Your task to perform on an android device: What's the weather going to be this weekend? Image 0: 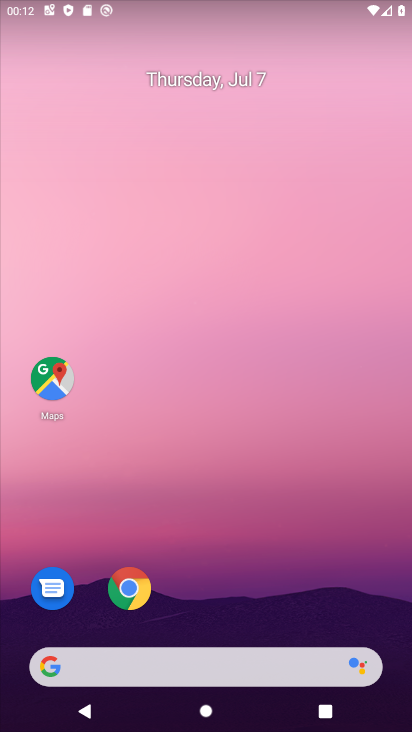
Step 0: drag from (253, 727) to (209, 85)
Your task to perform on an android device: What's the weather going to be this weekend? Image 1: 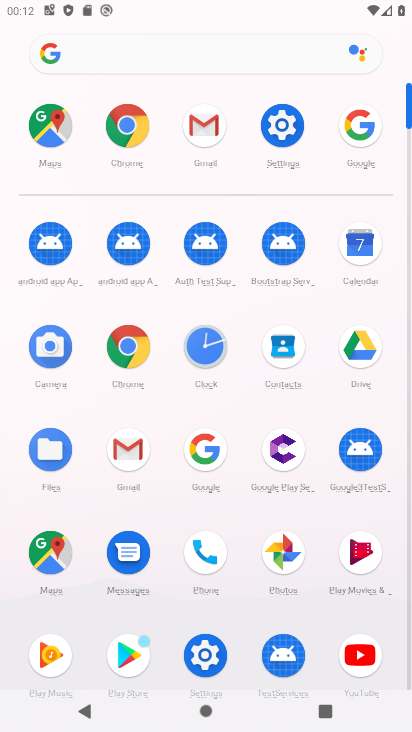
Step 1: click (206, 446)
Your task to perform on an android device: What's the weather going to be this weekend? Image 2: 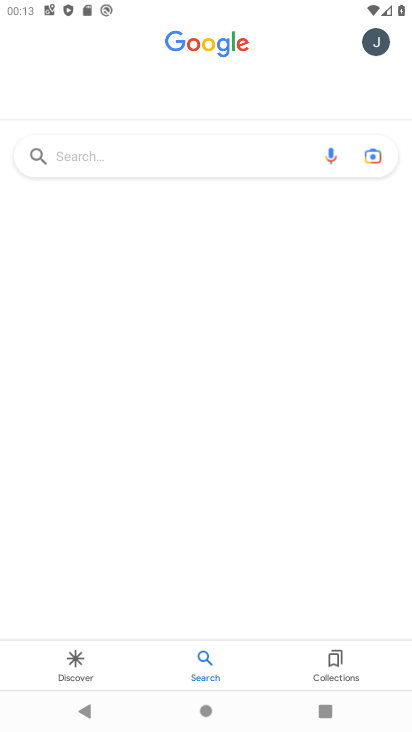
Step 2: drag from (154, 218) to (140, 591)
Your task to perform on an android device: What's the weather going to be this weekend? Image 3: 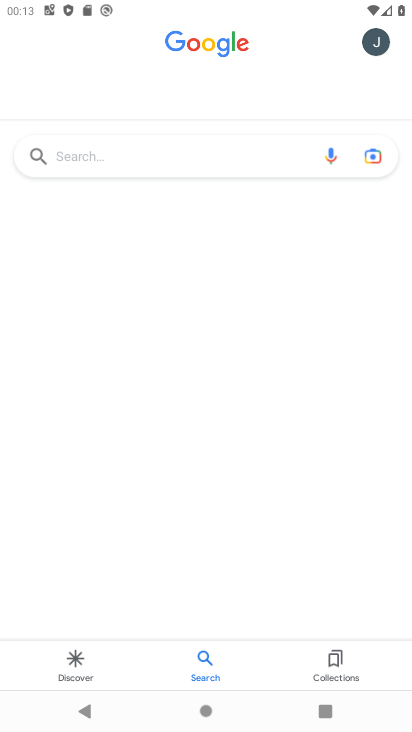
Step 3: click (233, 159)
Your task to perform on an android device: What's the weather going to be this weekend? Image 4: 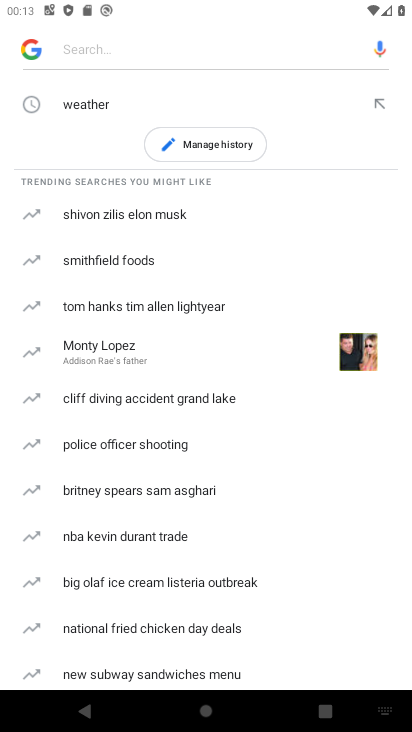
Step 4: click (86, 101)
Your task to perform on an android device: What's the weather going to be this weekend? Image 5: 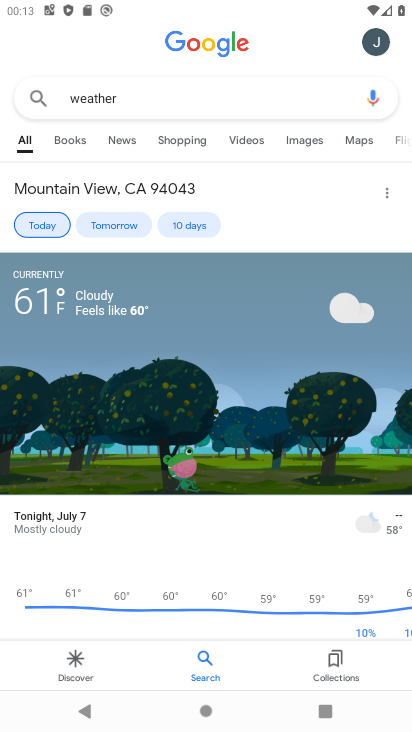
Step 5: click (46, 222)
Your task to perform on an android device: What's the weather going to be this weekend? Image 6: 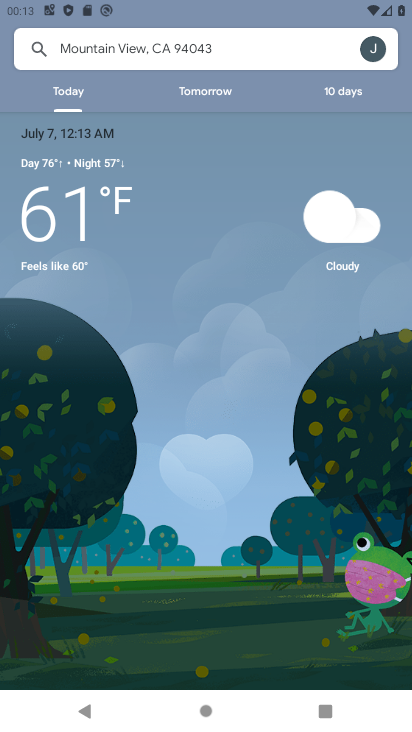
Step 6: click (352, 91)
Your task to perform on an android device: What's the weather going to be this weekend? Image 7: 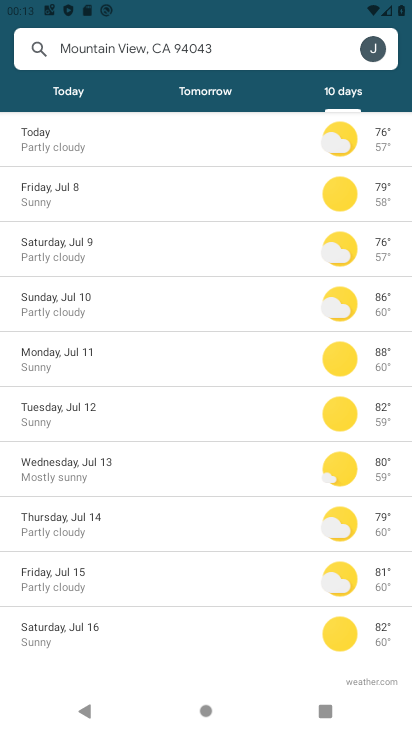
Step 7: click (73, 255)
Your task to perform on an android device: What's the weather going to be this weekend? Image 8: 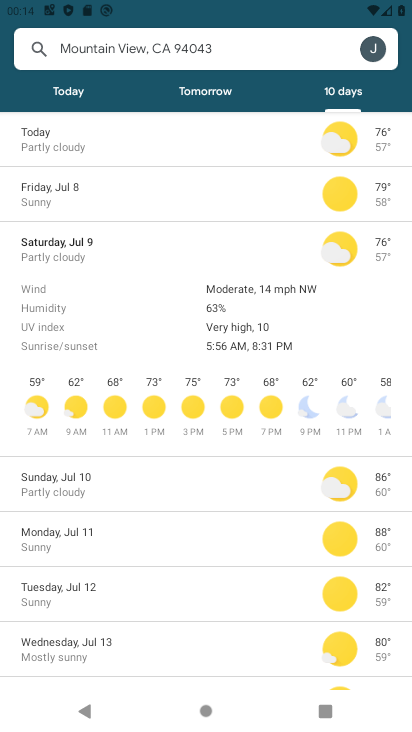
Step 8: task complete